Your task to perform on an android device: Open Yahoo.com Image 0: 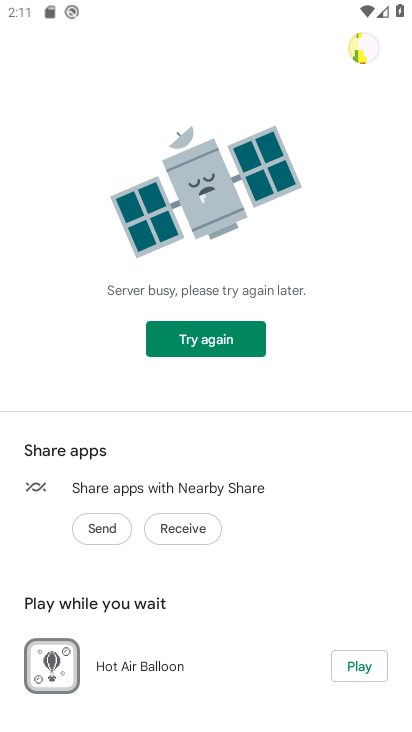
Step 0: press home button
Your task to perform on an android device: Open Yahoo.com Image 1: 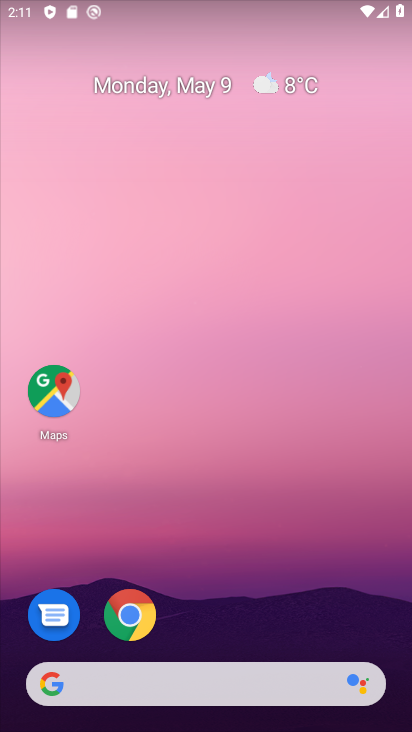
Step 1: click (139, 628)
Your task to perform on an android device: Open Yahoo.com Image 2: 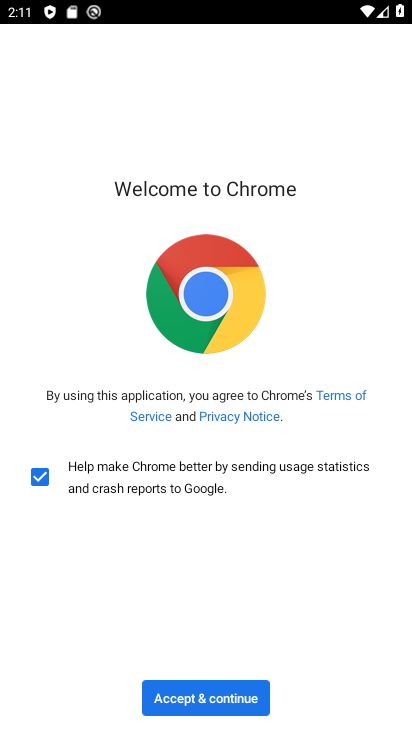
Step 2: click (209, 688)
Your task to perform on an android device: Open Yahoo.com Image 3: 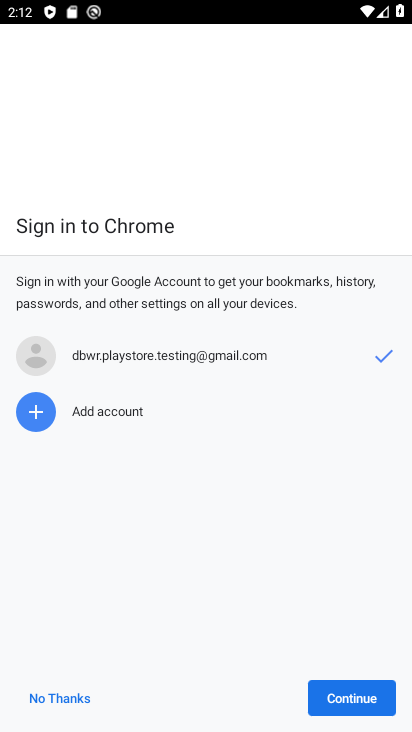
Step 3: click (354, 698)
Your task to perform on an android device: Open Yahoo.com Image 4: 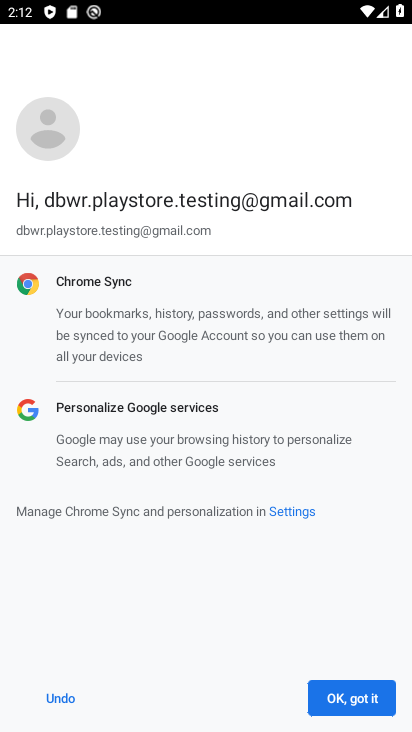
Step 4: click (355, 698)
Your task to perform on an android device: Open Yahoo.com Image 5: 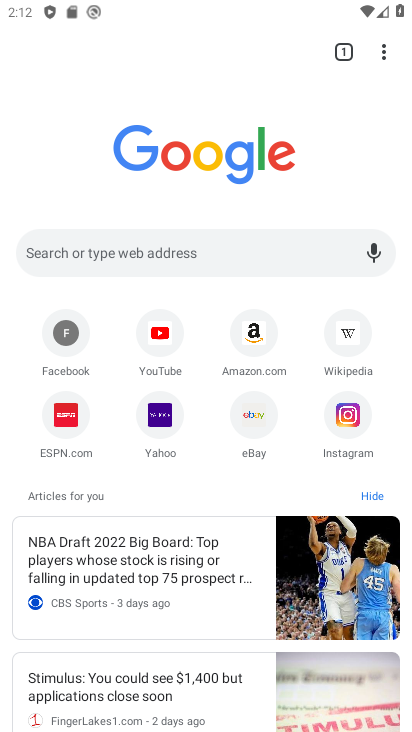
Step 5: click (154, 421)
Your task to perform on an android device: Open Yahoo.com Image 6: 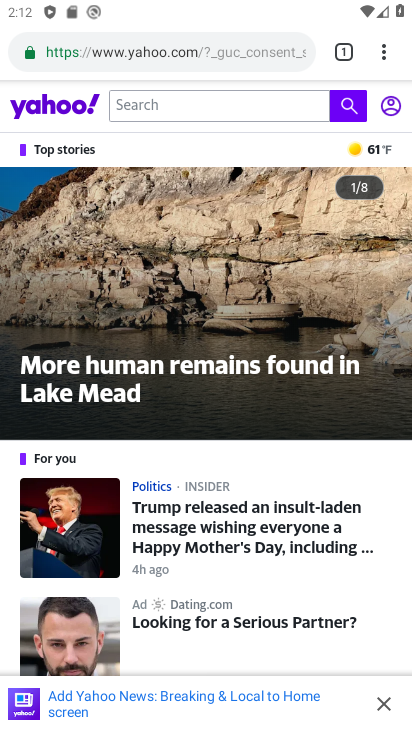
Step 6: task complete